Your task to perform on an android device: add a contact in the contacts app Image 0: 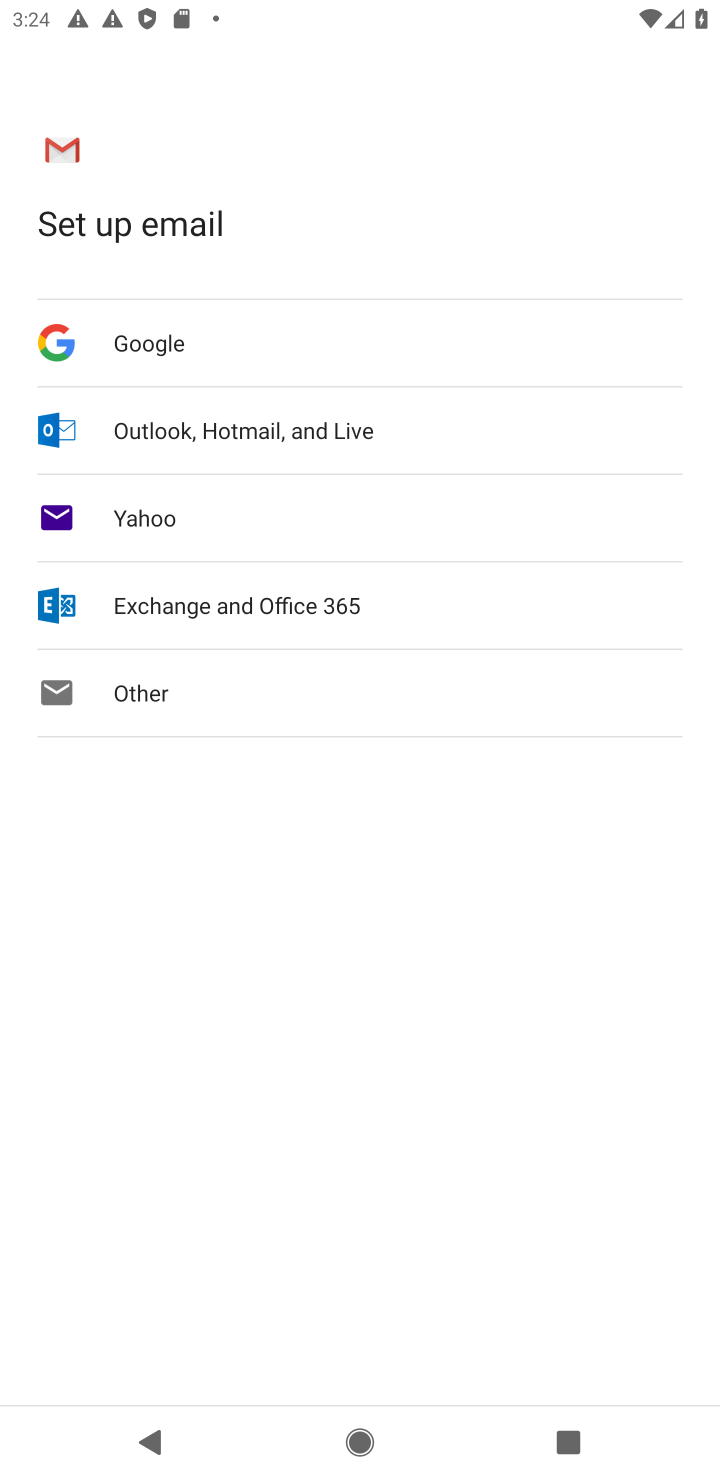
Step 0: press home button
Your task to perform on an android device: add a contact in the contacts app Image 1: 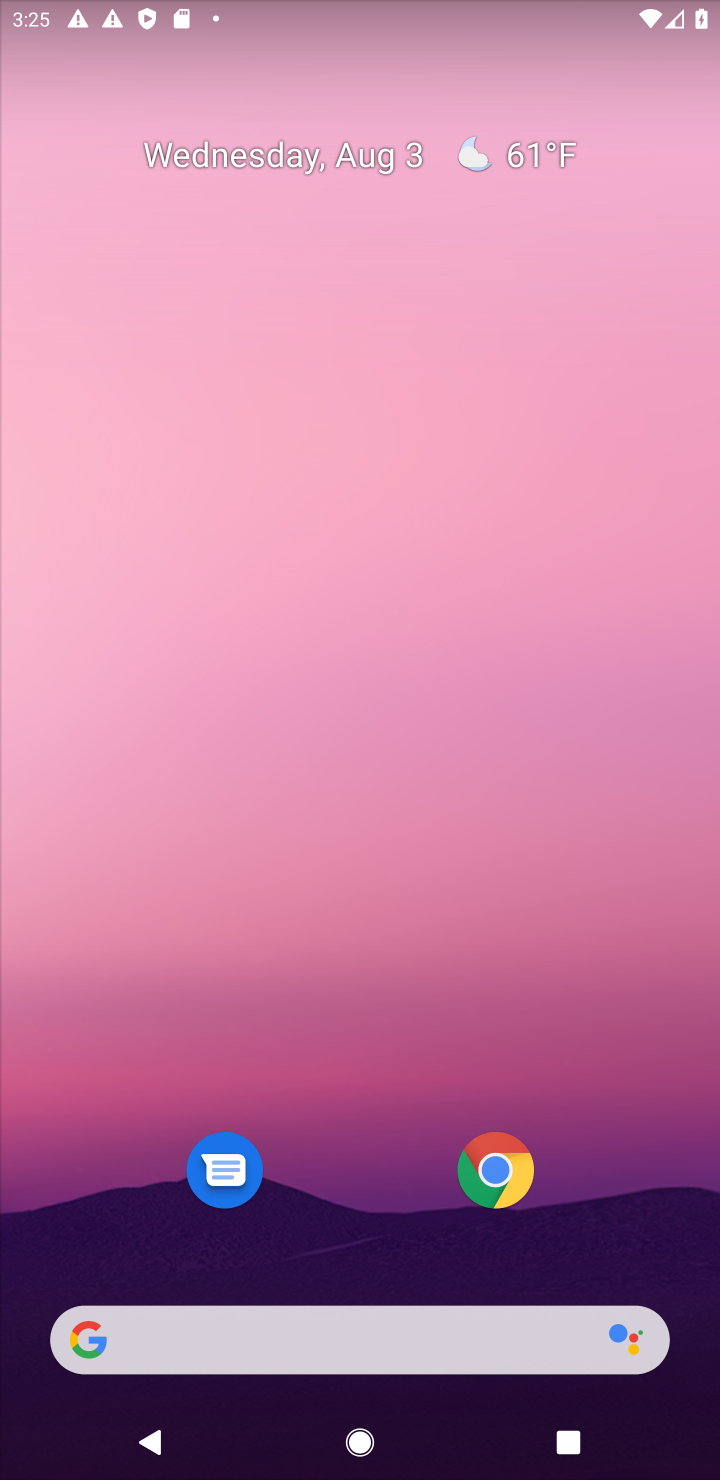
Step 1: drag from (675, 1233) to (436, 238)
Your task to perform on an android device: add a contact in the contacts app Image 2: 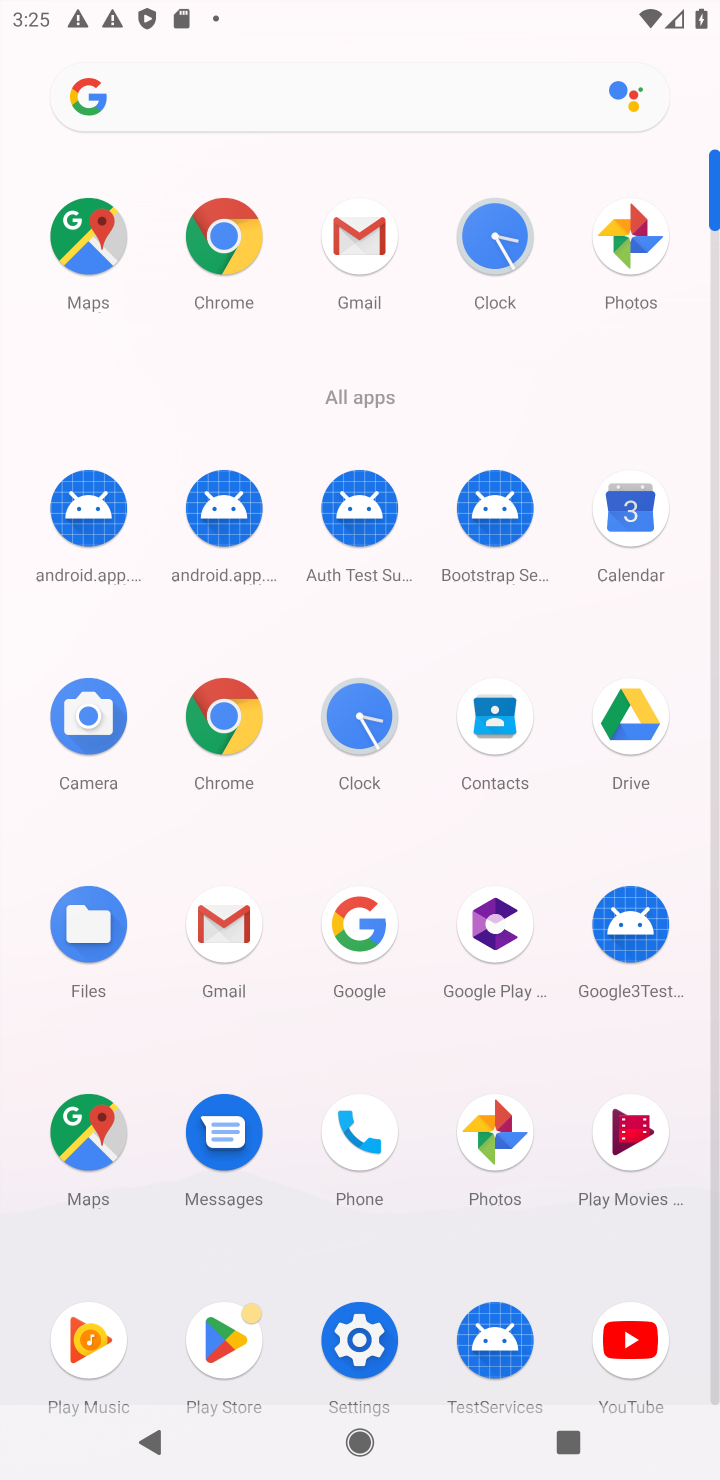
Step 2: click (500, 728)
Your task to perform on an android device: add a contact in the contacts app Image 3: 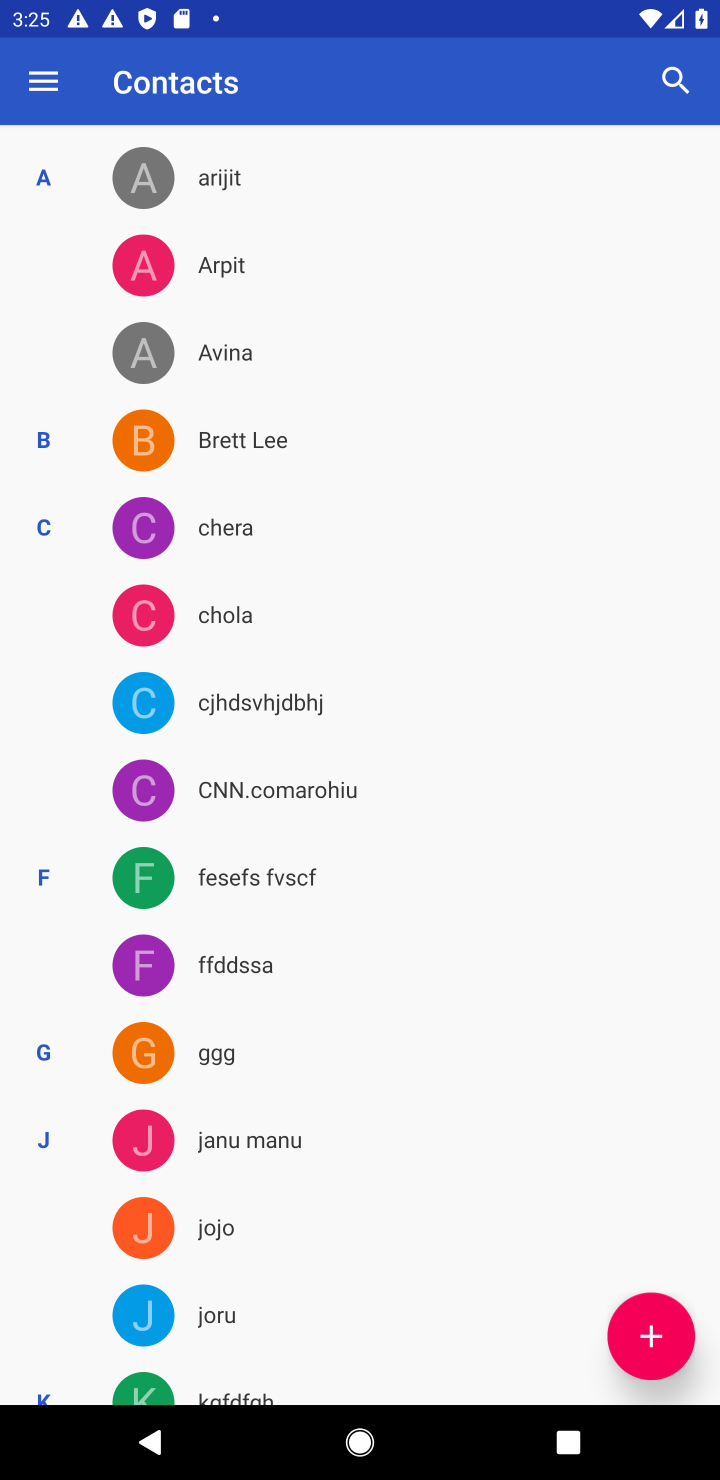
Step 3: click (646, 1359)
Your task to perform on an android device: add a contact in the contacts app Image 4: 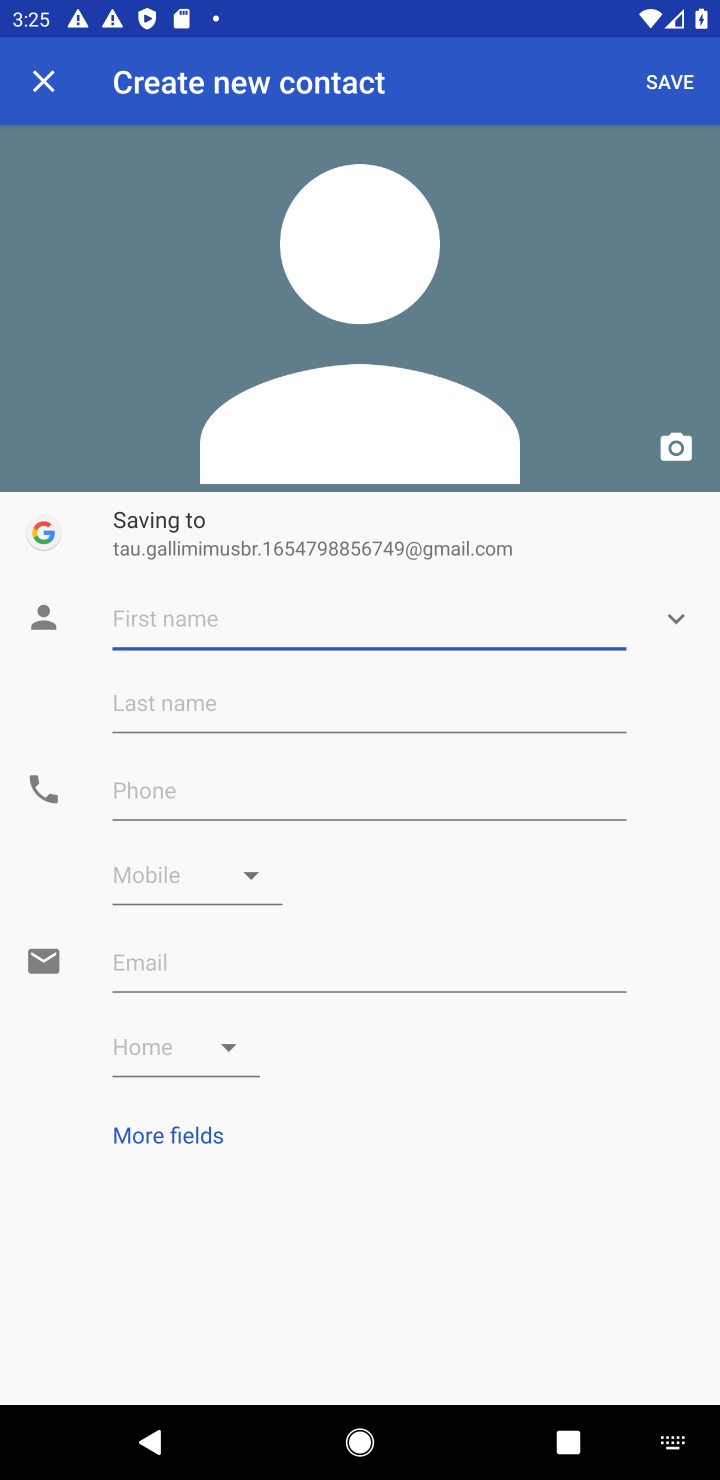
Step 4: click (314, 625)
Your task to perform on an android device: add a contact in the contacts app Image 5: 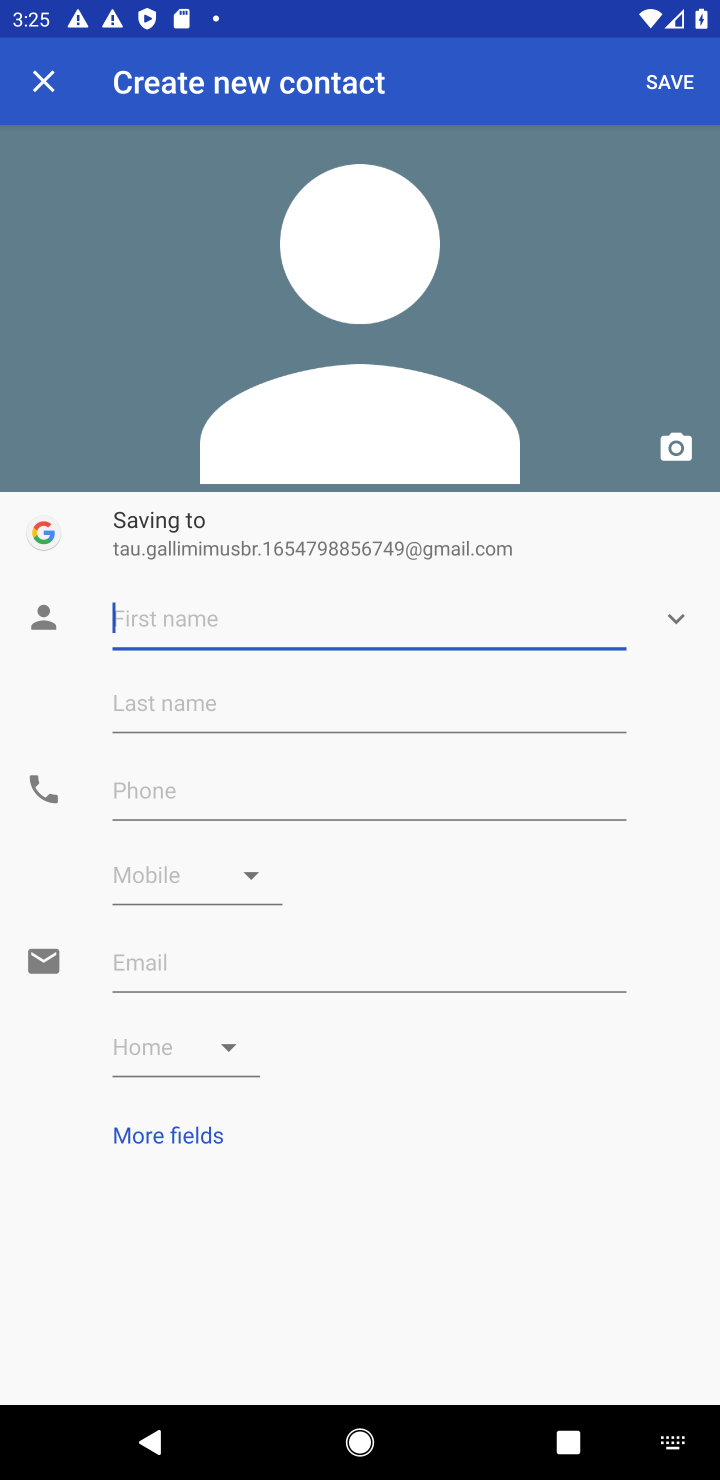
Step 5: type " bhkjb"
Your task to perform on an android device: add a contact in the contacts app Image 6: 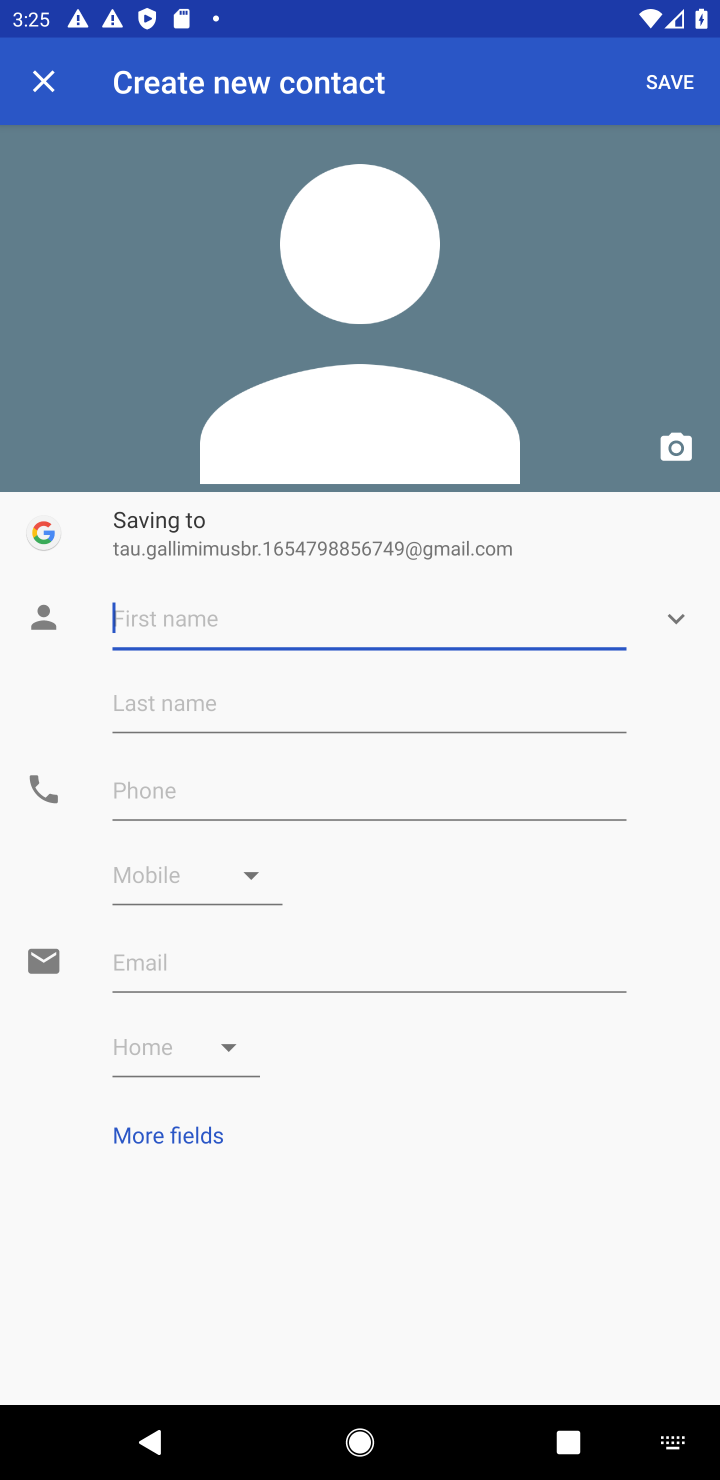
Step 6: click (569, 805)
Your task to perform on an android device: add a contact in the contacts app Image 7: 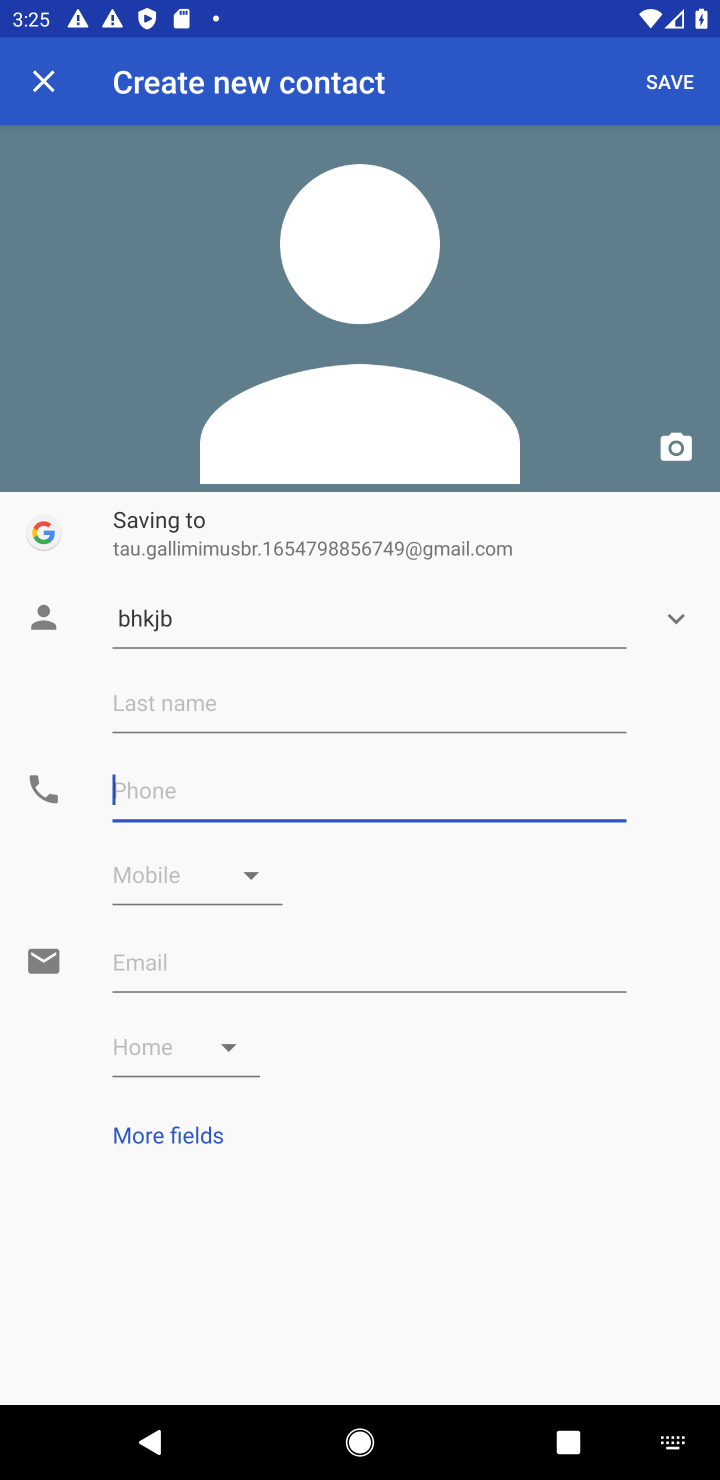
Step 7: type "7989"
Your task to perform on an android device: add a contact in the contacts app Image 8: 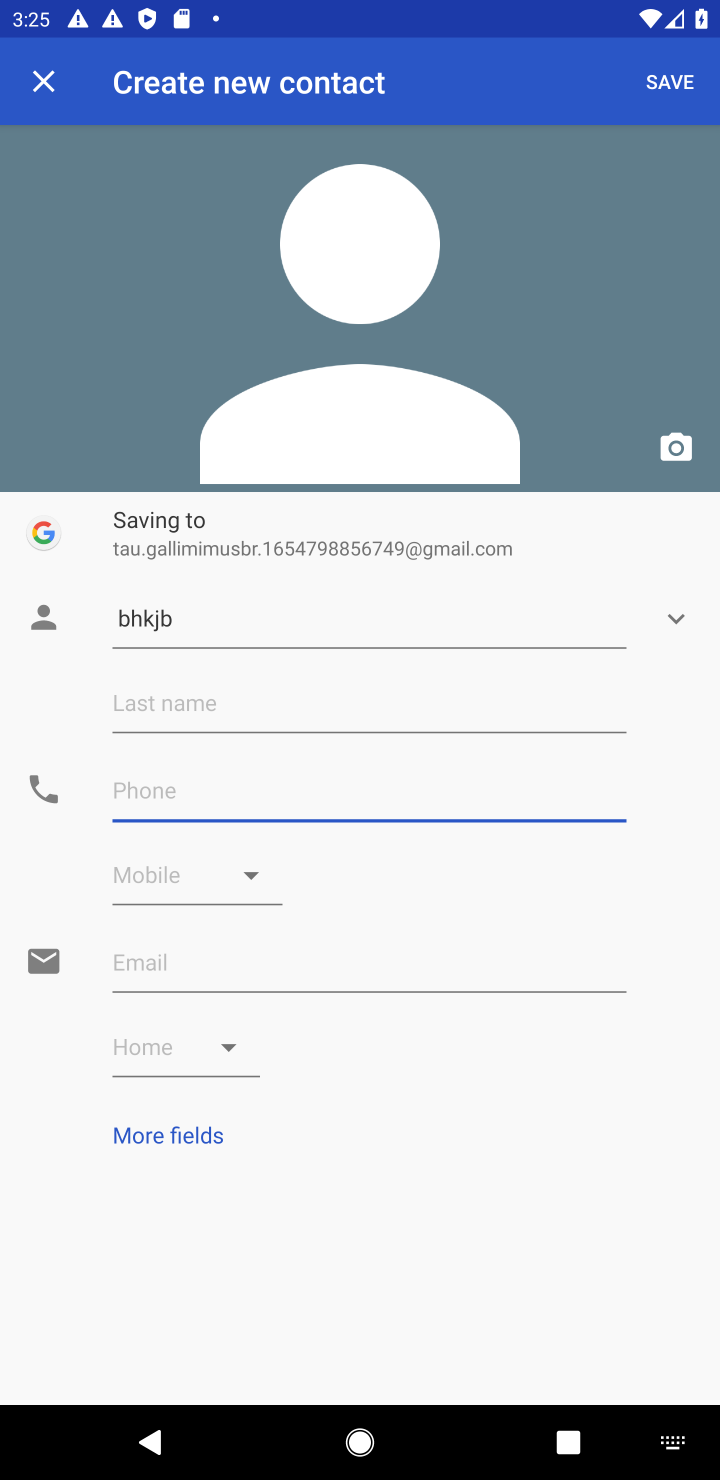
Step 8: click (656, 1224)
Your task to perform on an android device: add a contact in the contacts app Image 9: 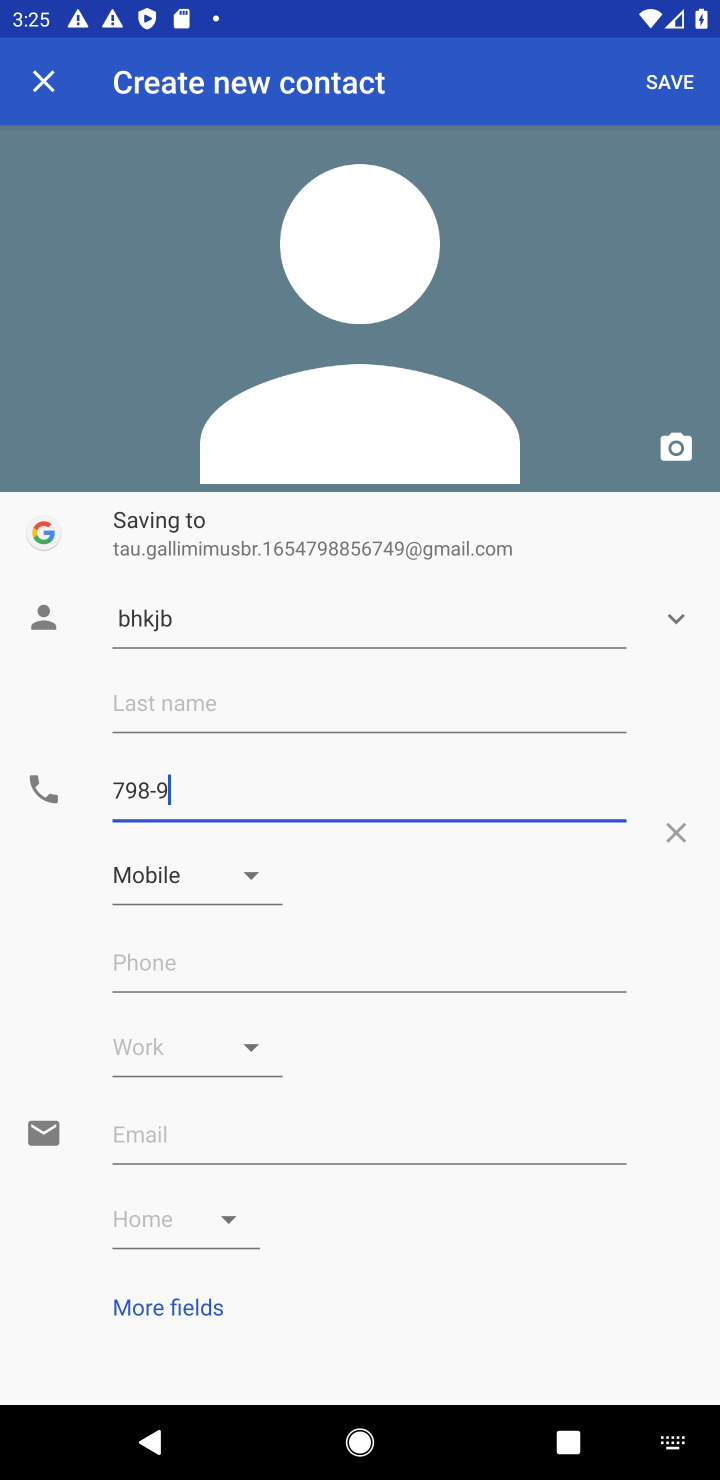
Step 9: click (671, 80)
Your task to perform on an android device: add a contact in the contacts app Image 10: 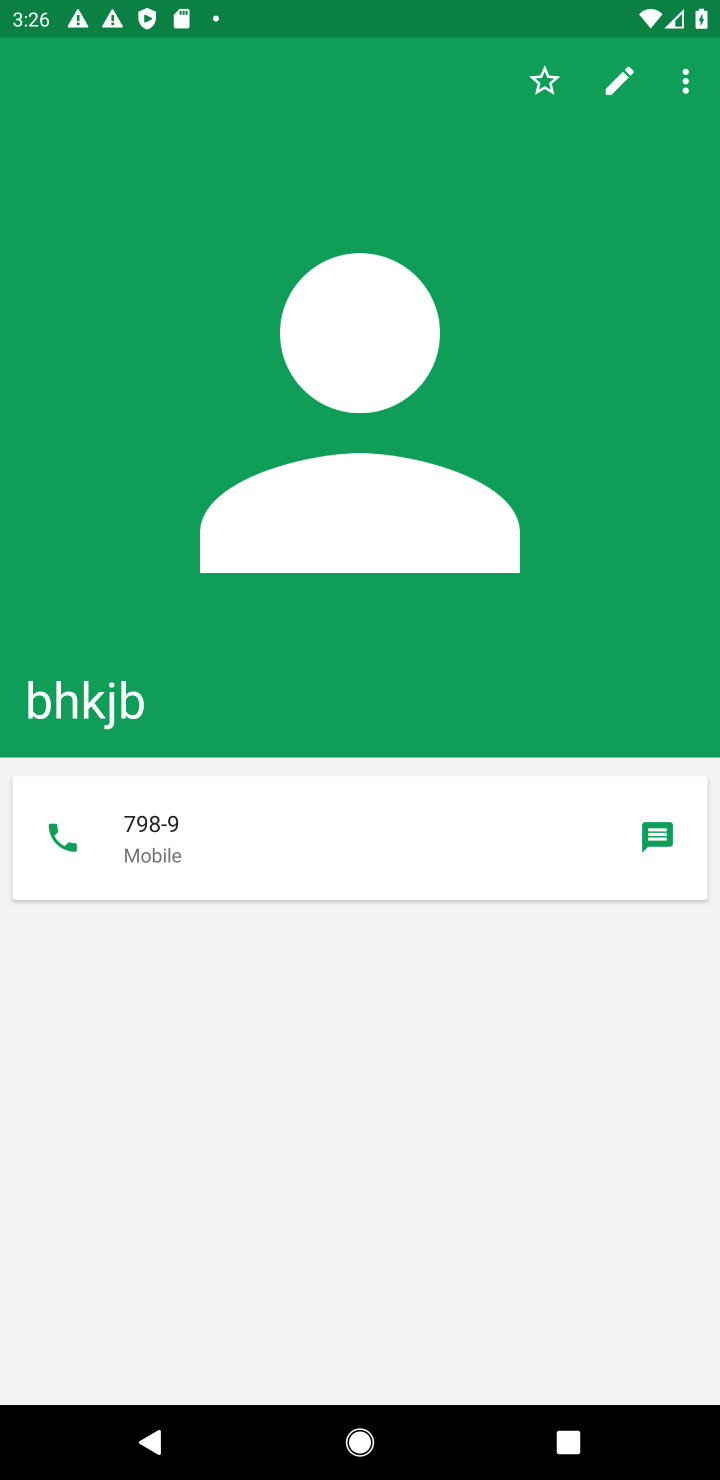
Step 10: task complete